Your task to perform on an android device: toggle sleep mode Image 0: 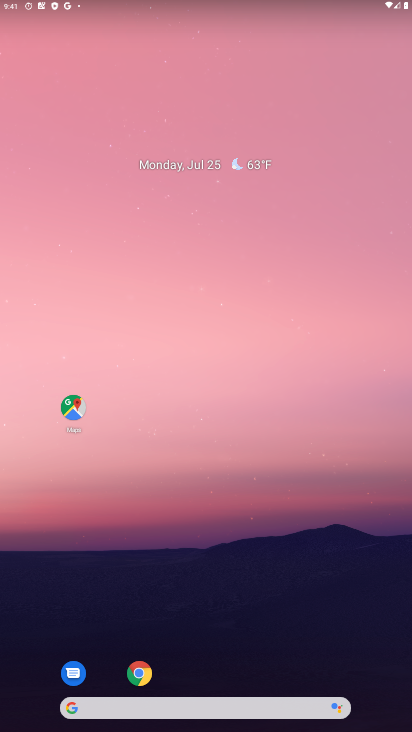
Step 0: drag from (167, 664) to (227, 119)
Your task to perform on an android device: toggle sleep mode Image 1: 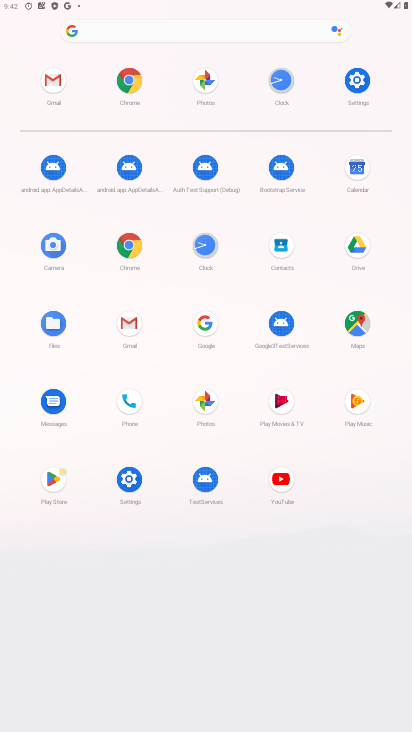
Step 1: click (134, 478)
Your task to perform on an android device: toggle sleep mode Image 2: 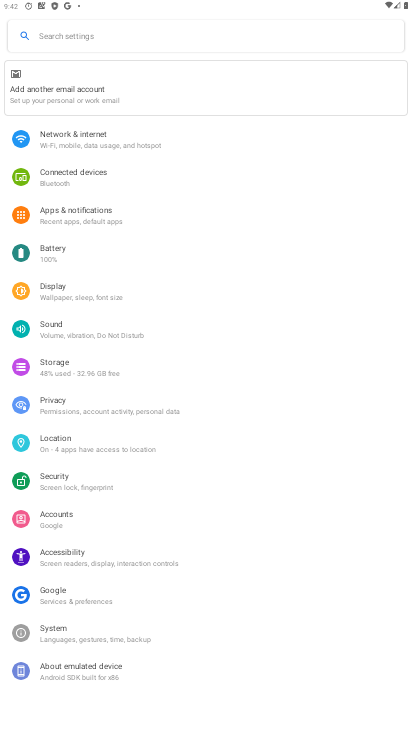
Step 2: click (73, 296)
Your task to perform on an android device: toggle sleep mode Image 3: 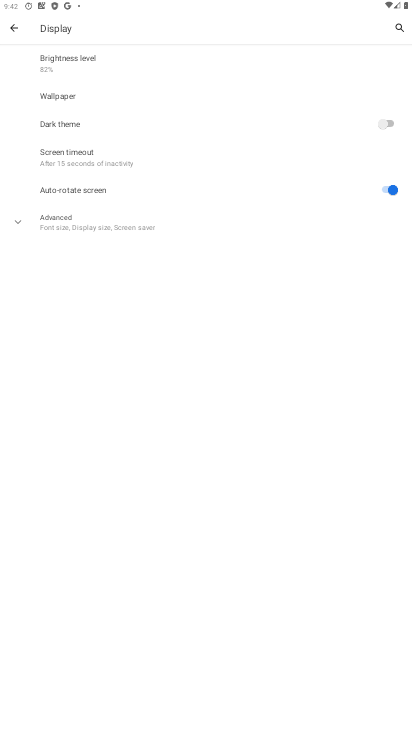
Step 3: click (85, 154)
Your task to perform on an android device: toggle sleep mode Image 4: 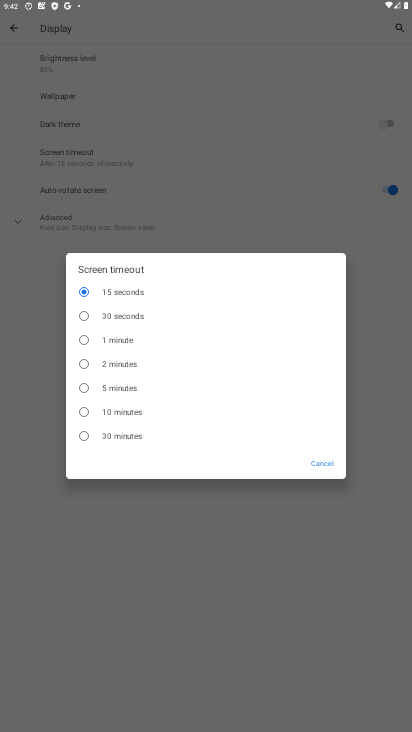
Step 4: task complete